Your task to perform on an android device: Check the news Image 0: 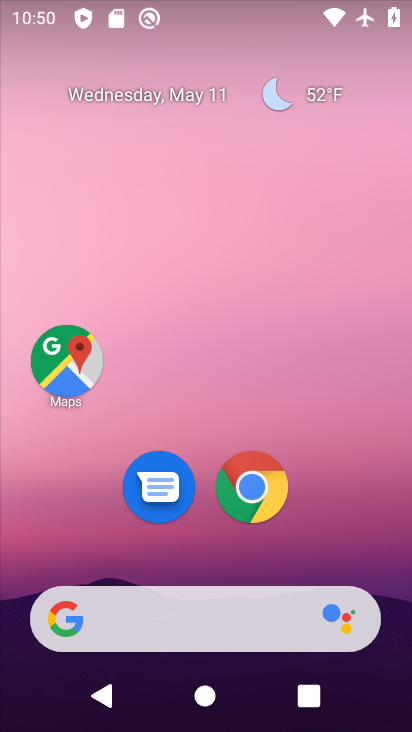
Step 0: drag from (358, 516) to (217, 4)
Your task to perform on an android device: Check the news Image 1: 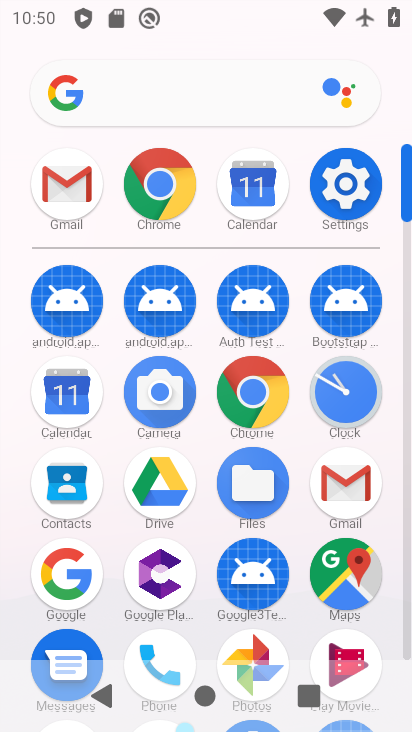
Step 1: drag from (9, 518) to (16, 239)
Your task to perform on an android device: Check the news Image 2: 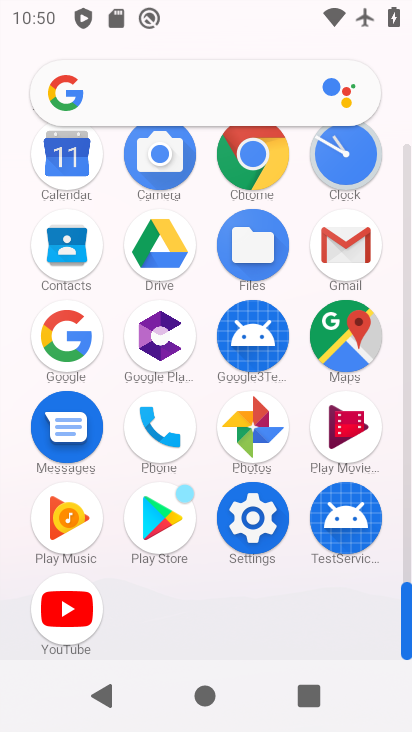
Step 2: click (254, 155)
Your task to perform on an android device: Check the news Image 3: 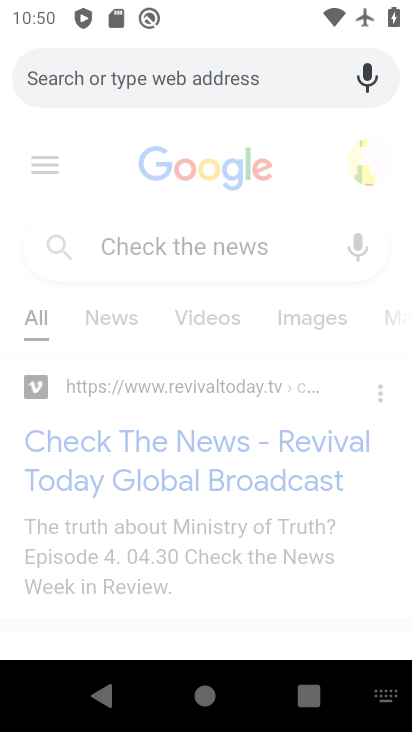
Step 3: click (110, 320)
Your task to perform on an android device: Check the news Image 4: 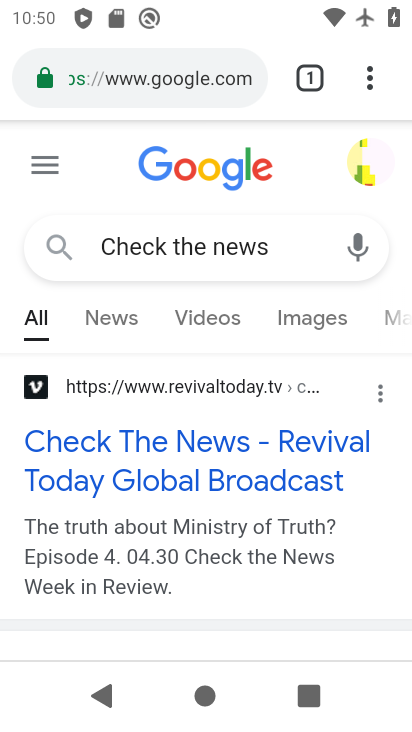
Step 4: click (110, 320)
Your task to perform on an android device: Check the news Image 5: 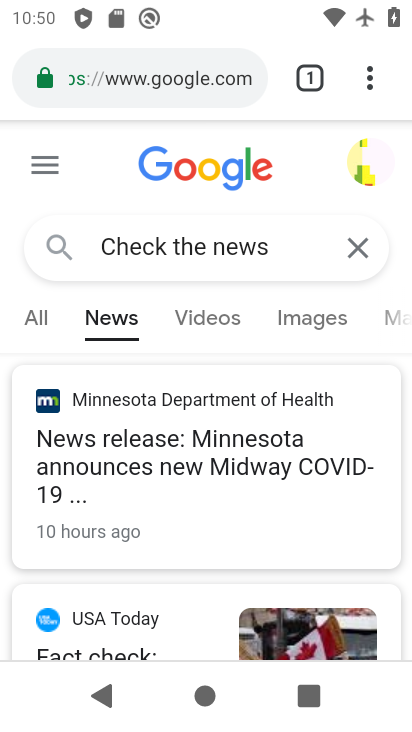
Step 5: task complete